Your task to perform on an android device: Set the phone to "Do not disturb". Image 0: 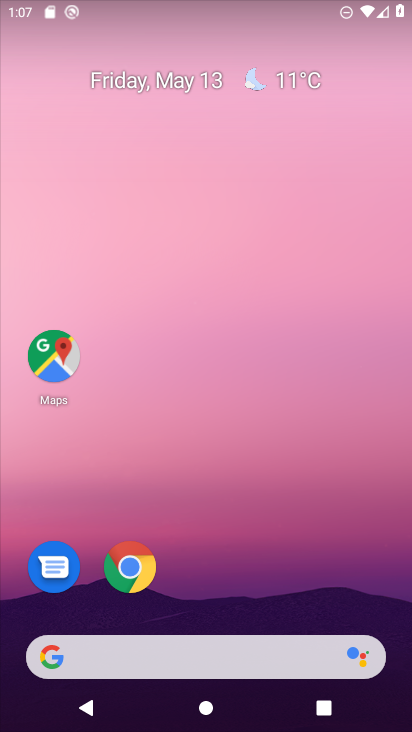
Step 0: press home button
Your task to perform on an android device: Set the phone to "Do not disturb". Image 1: 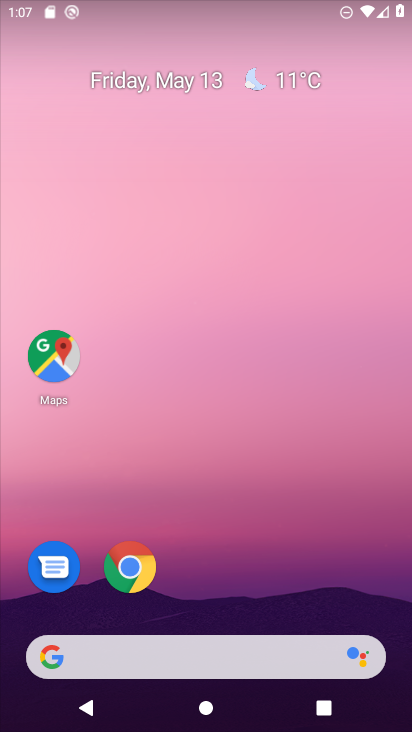
Step 1: task complete